Your task to perform on an android device: Go to wifi settings Image 0: 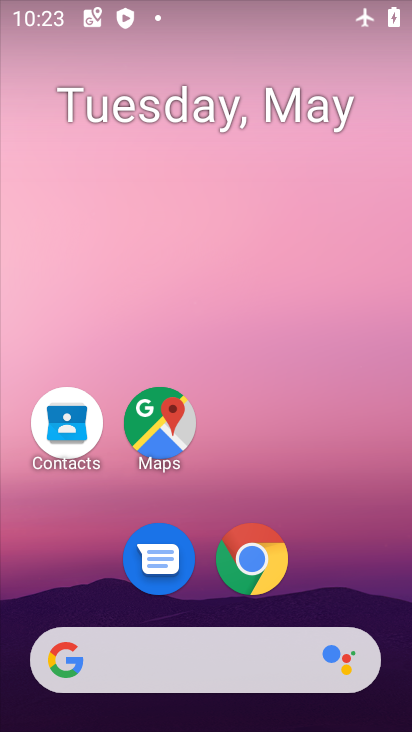
Step 0: drag from (361, 561) to (260, 110)
Your task to perform on an android device: Go to wifi settings Image 1: 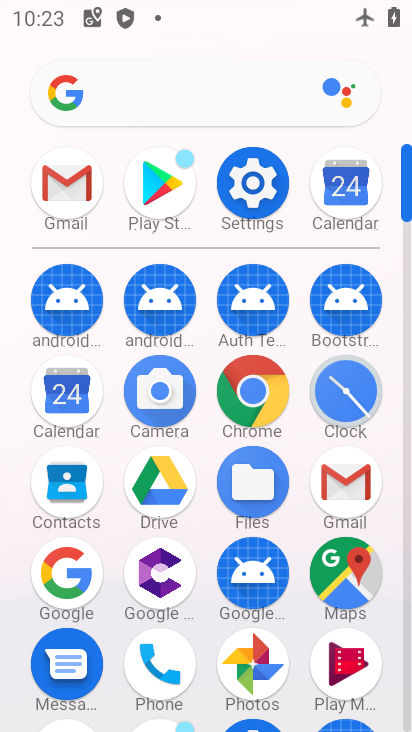
Step 1: click (247, 189)
Your task to perform on an android device: Go to wifi settings Image 2: 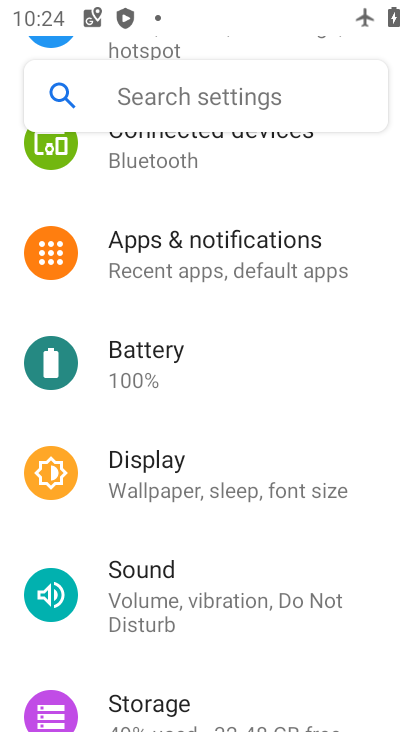
Step 2: drag from (216, 188) to (358, 478)
Your task to perform on an android device: Go to wifi settings Image 3: 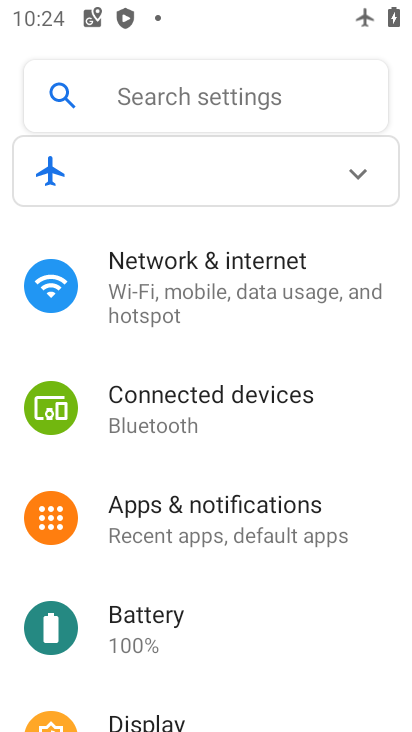
Step 3: click (244, 320)
Your task to perform on an android device: Go to wifi settings Image 4: 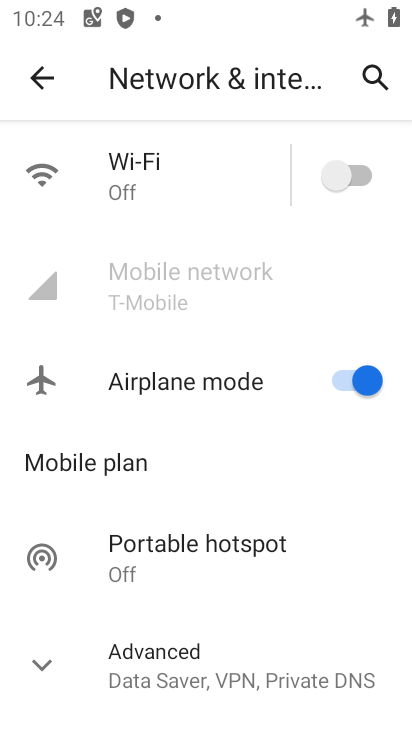
Step 4: click (168, 209)
Your task to perform on an android device: Go to wifi settings Image 5: 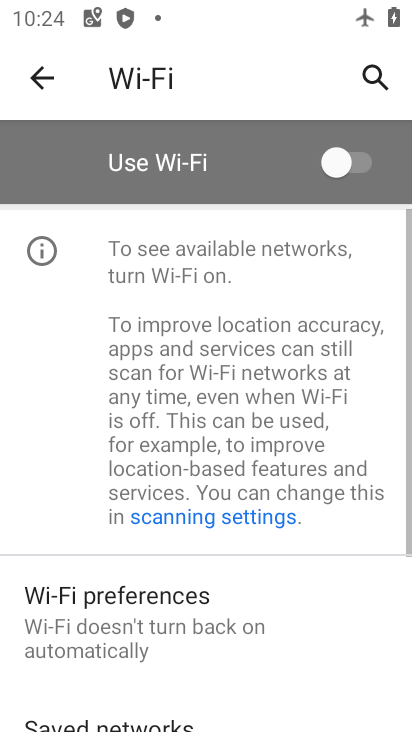
Step 5: task complete